Your task to perform on an android device: Open Chrome and go to settings Image 0: 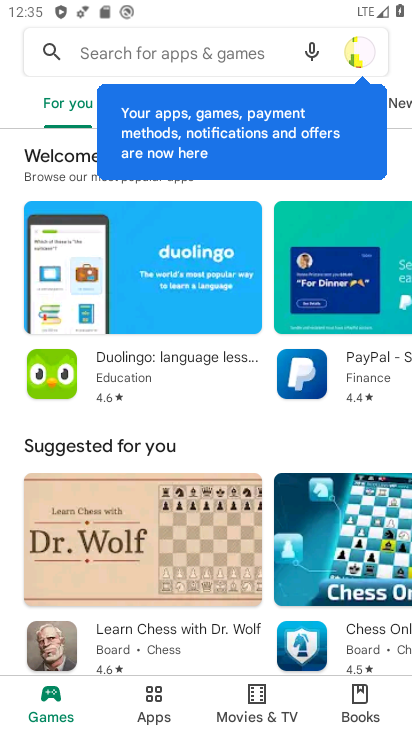
Step 0: press home button
Your task to perform on an android device: Open Chrome and go to settings Image 1: 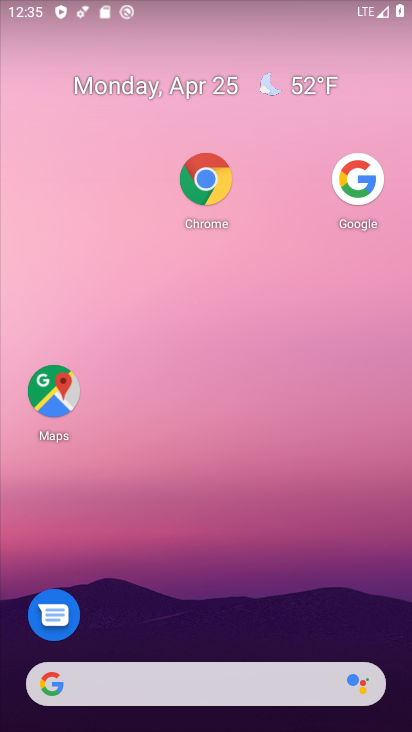
Step 1: drag from (143, 649) to (385, 40)
Your task to perform on an android device: Open Chrome and go to settings Image 2: 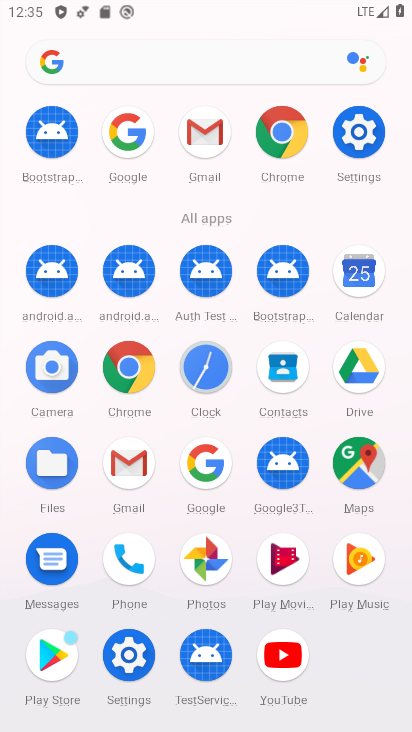
Step 2: click (288, 134)
Your task to perform on an android device: Open Chrome and go to settings Image 3: 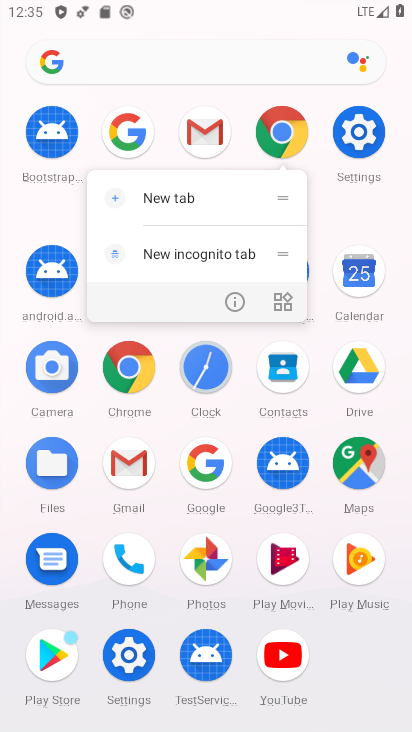
Step 3: click (276, 135)
Your task to perform on an android device: Open Chrome and go to settings Image 4: 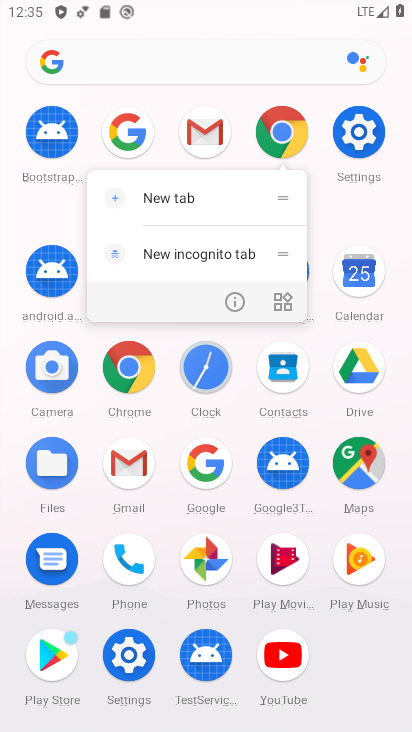
Step 4: click (287, 143)
Your task to perform on an android device: Open Chrome and go to settings Image 5: 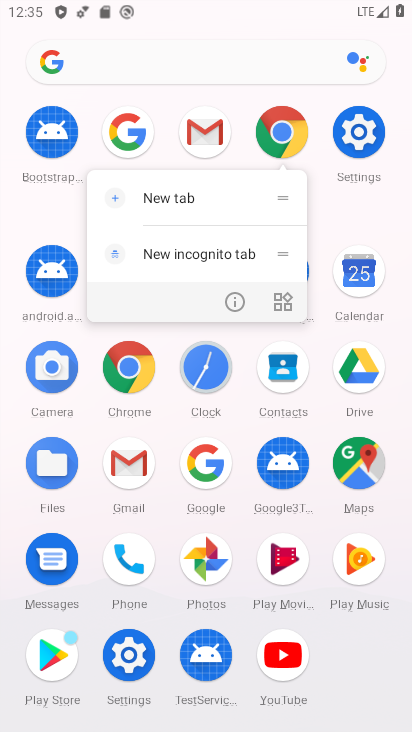
Step 5: click (279, 135)
Your task to perform on an android device: Open Chrome and go to settings Image 6: 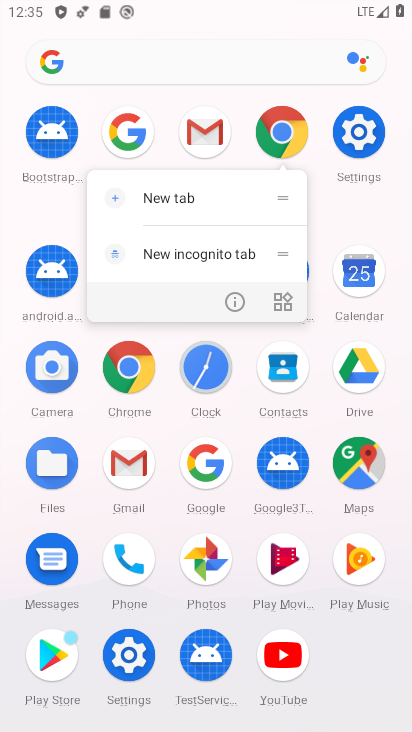
Step 6: click (288, 134)
Your task to perform on an android device: Open Chrome and go to settings Image 7: 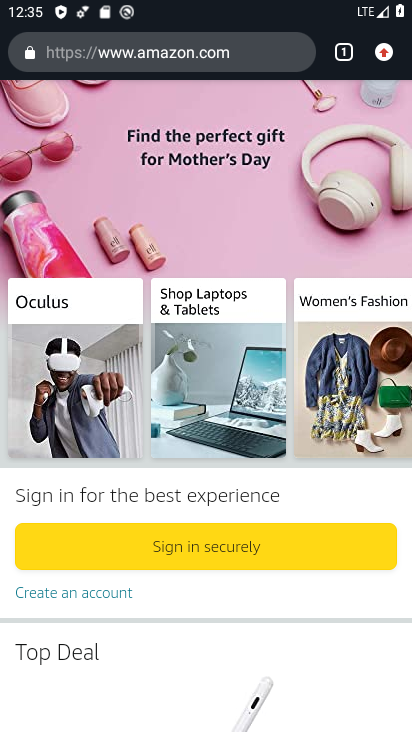
Step 7: click (384, 61)
Your task to perform on an android device: Open Chrome and go to settings Image 8: 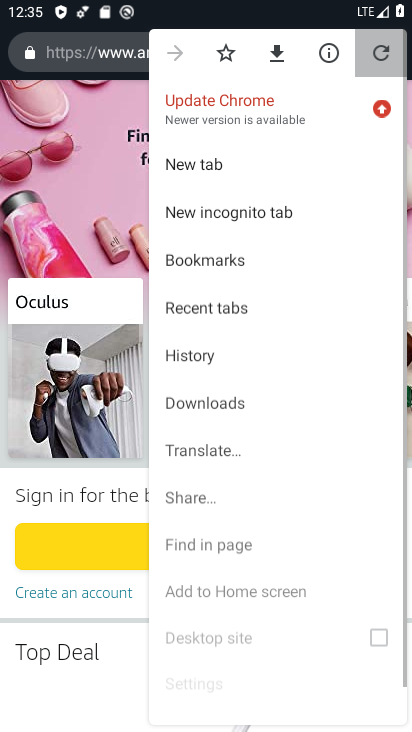
Step 8: task complete